Your task to perform on an android device: set the timer Image 0: 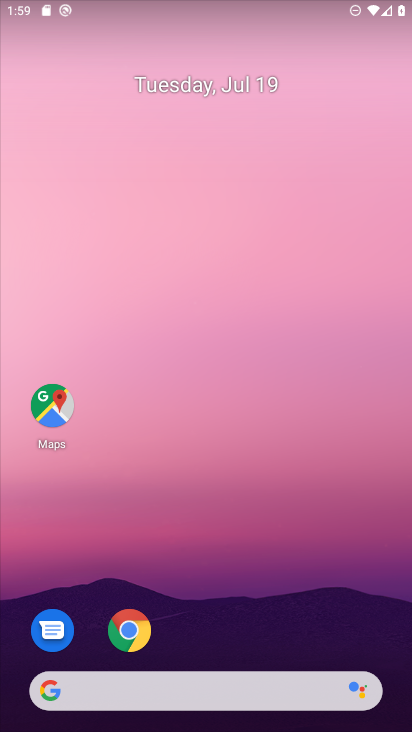
Step 0: press home button
Your task to perform on an android device: set the timer Image 1: 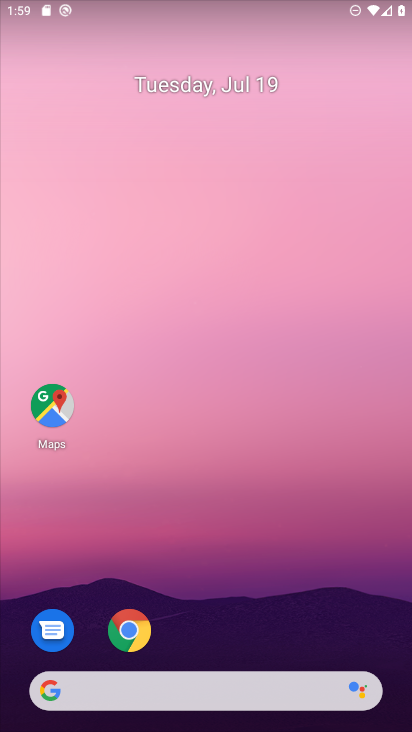
Step 1: drag from (194, 692) to (235, 83)
Your task to perform on an android device: set the timer Image 2: 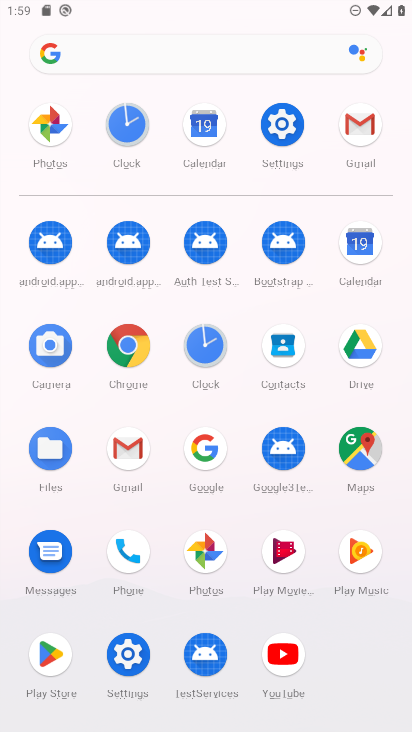
Step 2: click (129, 131)
Your task to perform on an android device: set the timer Image 3: 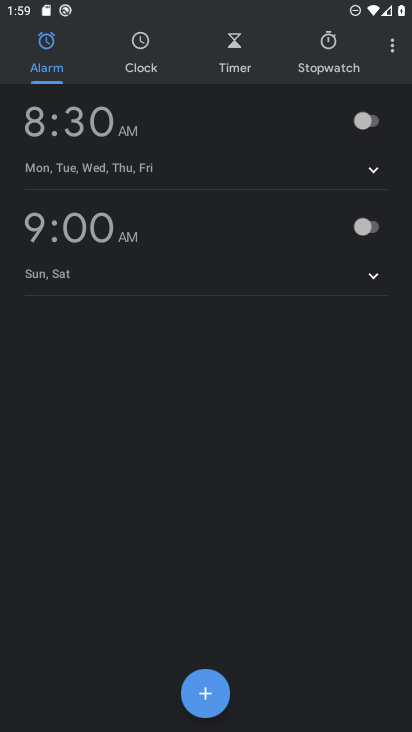
Step 3: click (243, 66)
Your task to perform on an android device: set the timer Image 4: 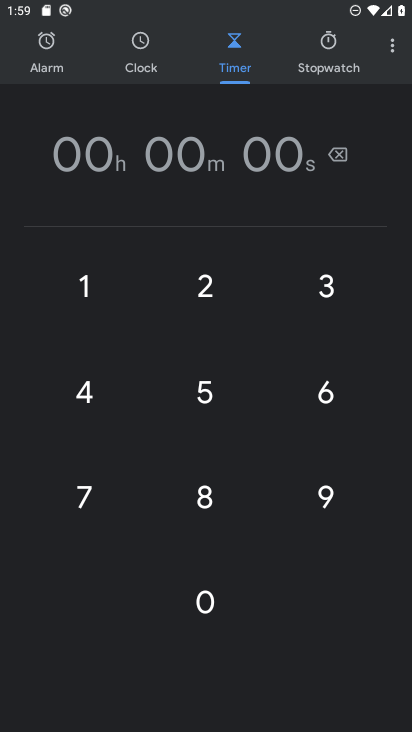
Step 4: click (87, 488)
Your task to perform on an android device: set the timer Image 5: 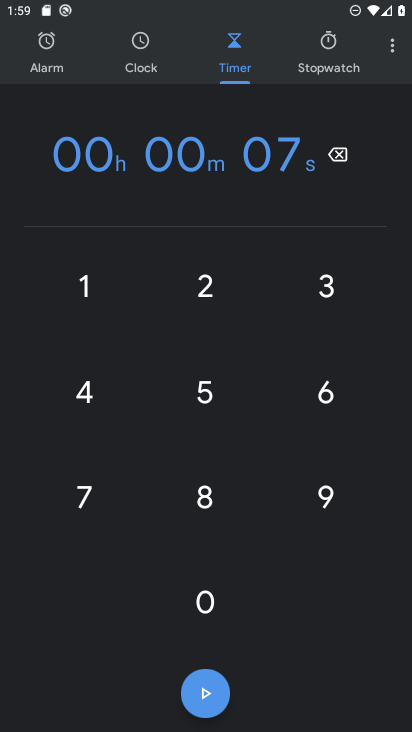
Step 5: click (87, 391)
Your task to perform on an android device: set the timer Image 6: 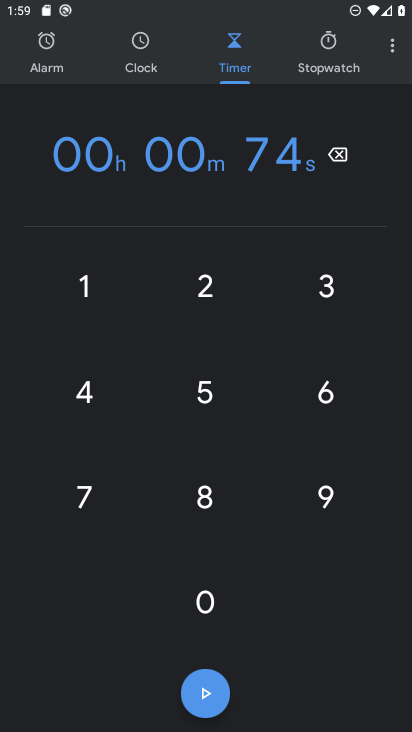
Step 6: click (203, 701)
Your task to perform on an android device: set the timer Image 7: 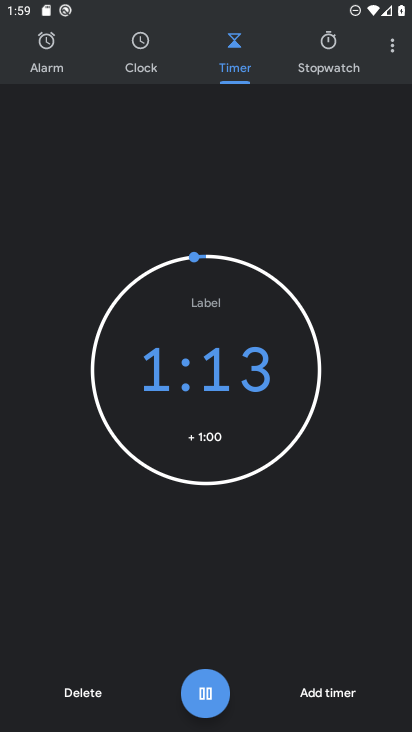
Step 7: click (197, 688)
Your task to perform on an android device: set the timer Image 8: 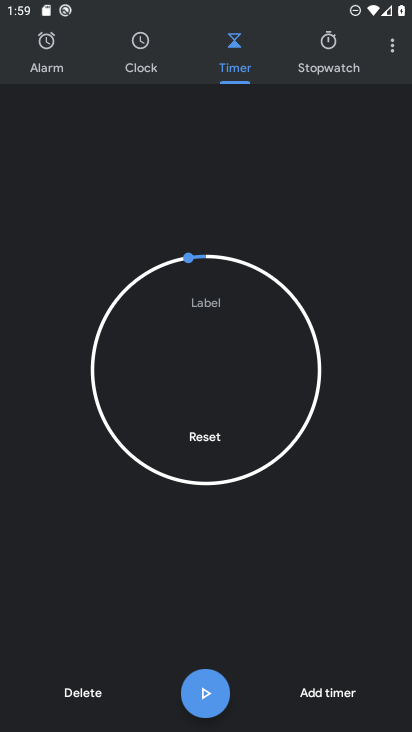
Step 8: task complete